Your task to perform on an android device: What's the weather going to be this weekend? Image 0: 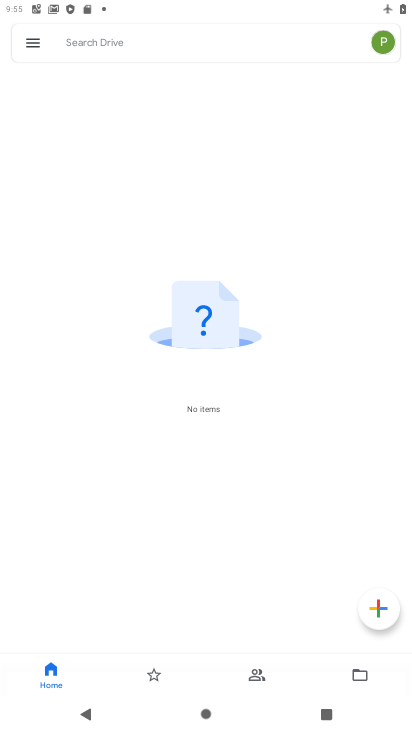
Step 0: press home button
Your task to perform on an android device: What's the weather going to be this weekend? Image 1: 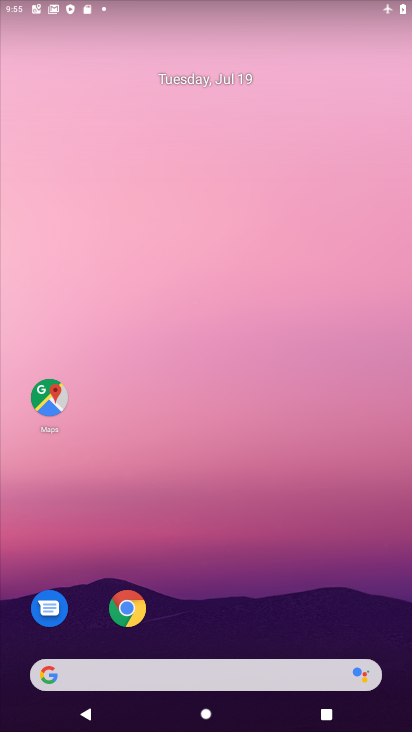
Step 1: drag from (308, 573) to (209, 45)
Your task to perform on an android device: What's the weather going to be this weekend? Image 2: 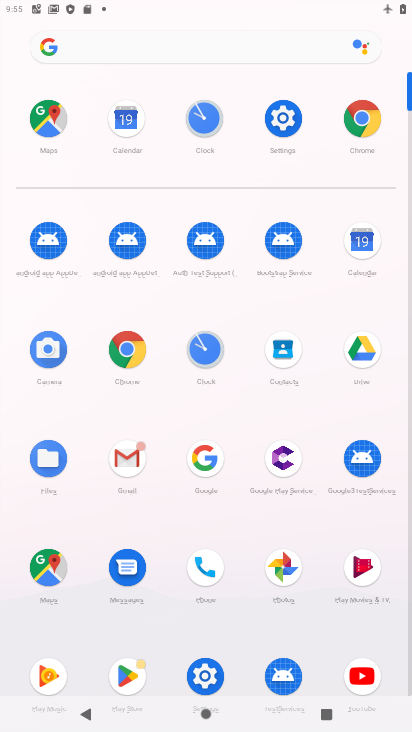
Step 2: click (369, 111)
Your task to perform on an android device: What's the weather going to be this weekend? Image 3: 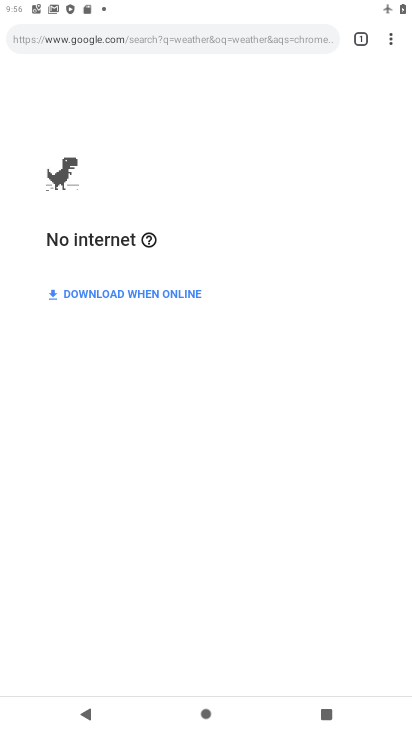
Step 3: press home button
Your task to perform on an android device: What's the weather going to be this weekend? Image 4: 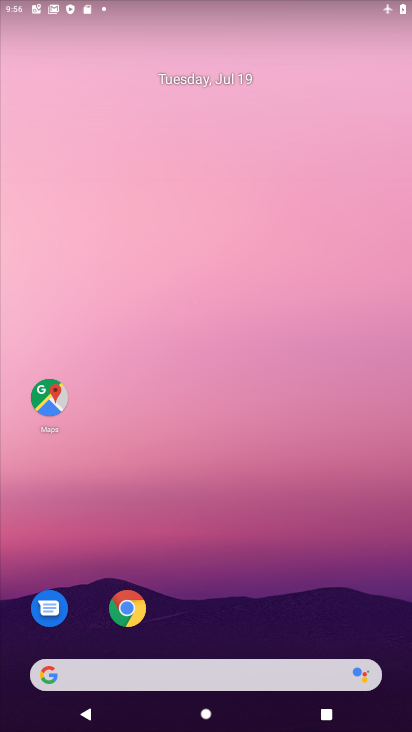
Step 4: click (277, 165)
Your task to perform on an android device: What's the weather going to be this weekend? Image 5: 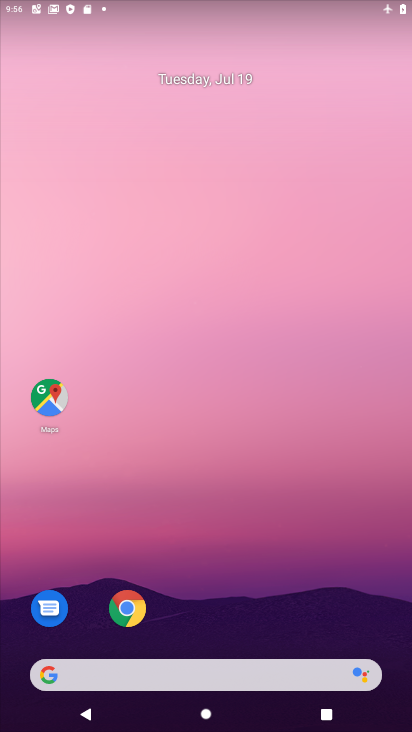
Step 5: drag from (308, 642) to (260, 40)
Your task to perform on an android device: What's the weather going to be this weekend? Image 6: 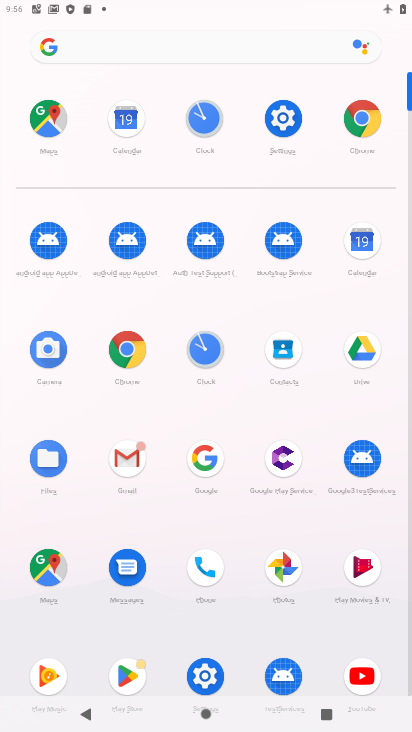
Step 6: click (358, 114)
Your task to perform on an android device: What's the weather going to be this weekend? Image 7: 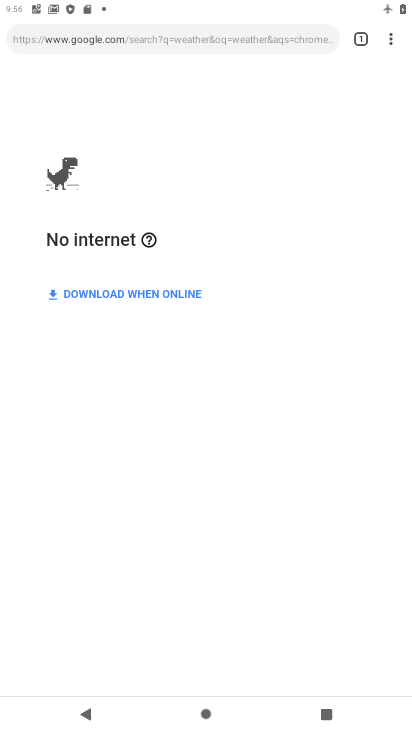
Step 7: click (182, 30)
Your task to perform on an android device: What's the weather going to be this weekend? Image 8: 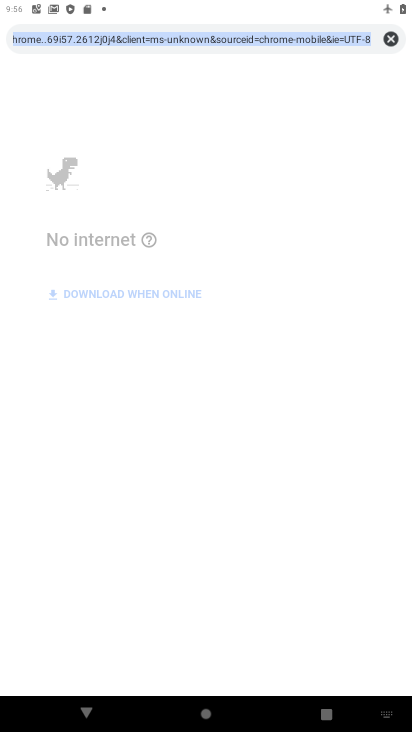
Step 8: type "weather"
Your task to perform on an android device: What's the weather going to be this weekend? Image 9: 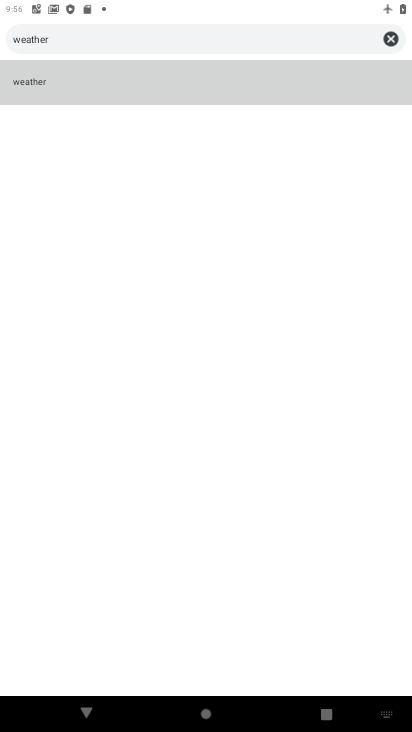
Step 9: click (46, 88)
Your task to perform on an android device: What's the weather going to be this weekend? Image 10: 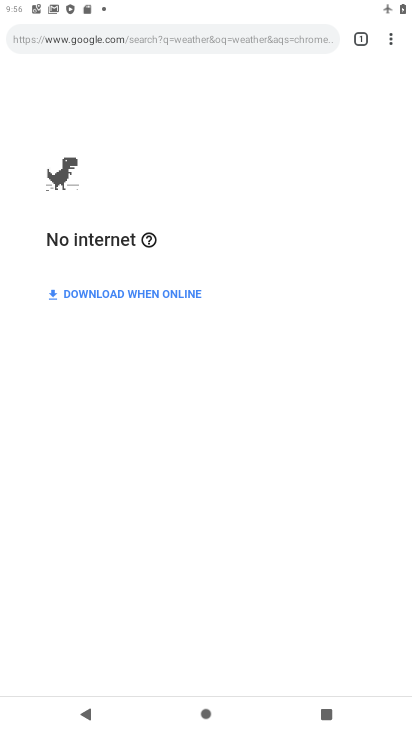
Step 10: task complete